Your task to perform on an android device: Check the news Image 0: 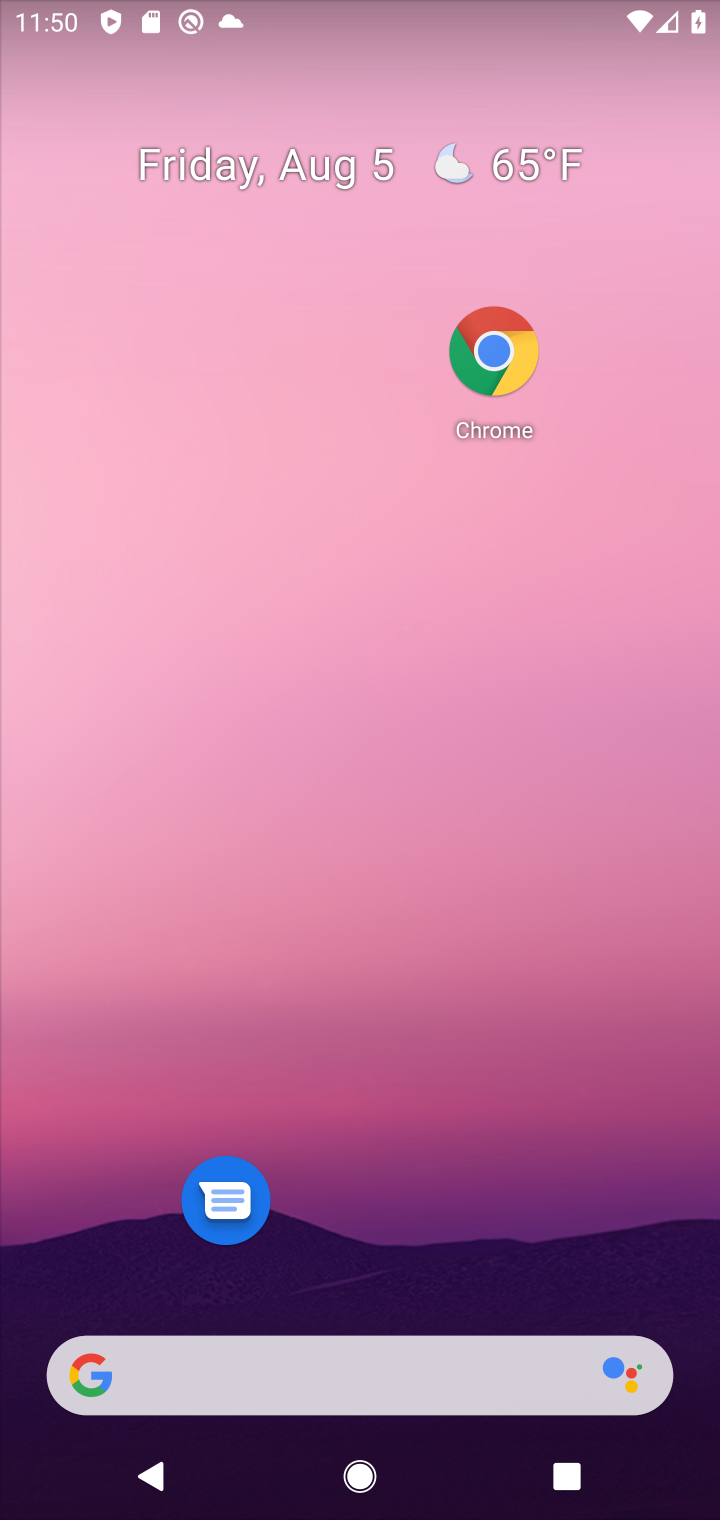
Step 0: drag from (358, 1220) to (576, 75)
Your task to perform on an android device: Check the news Image 1: 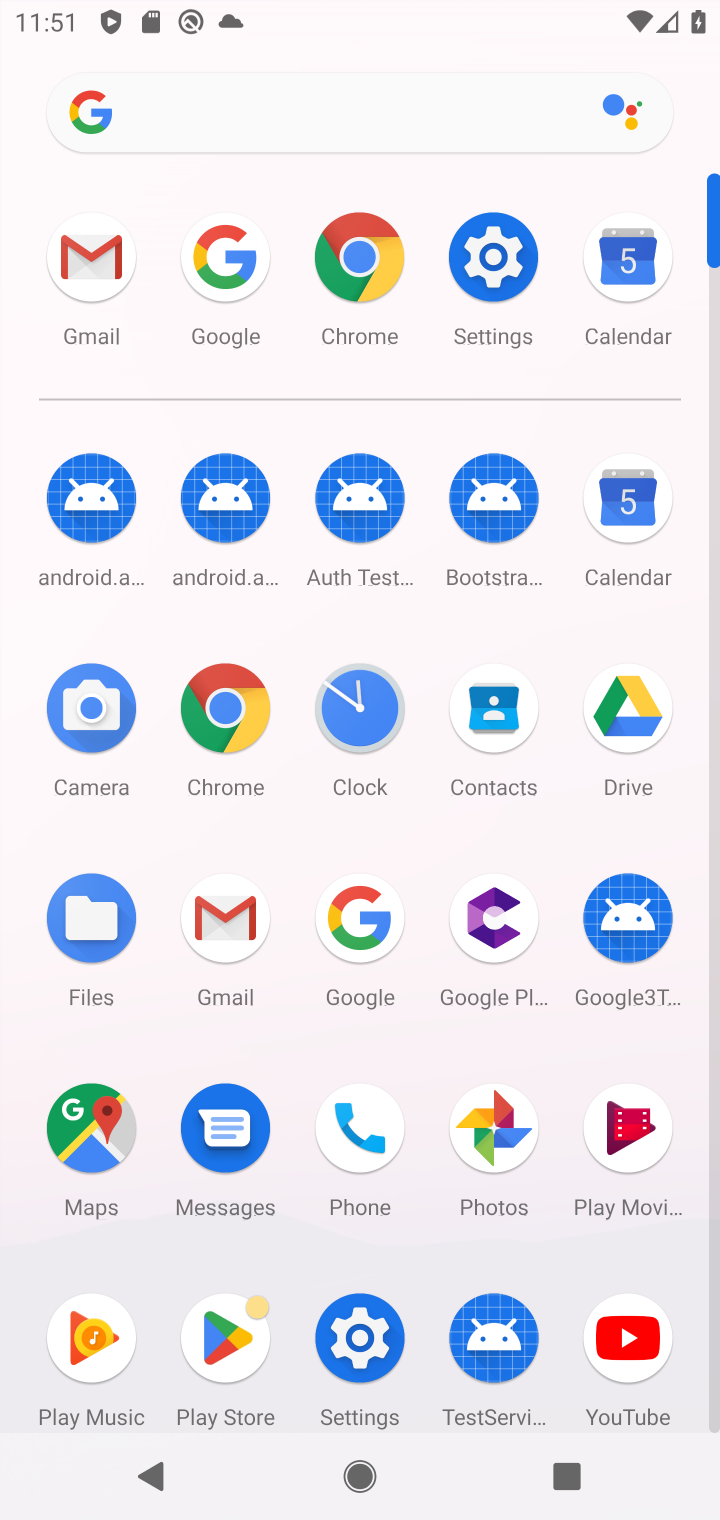
Step 1: click (366, 936)
Your task to perform on an android device: Check the news Image 2: 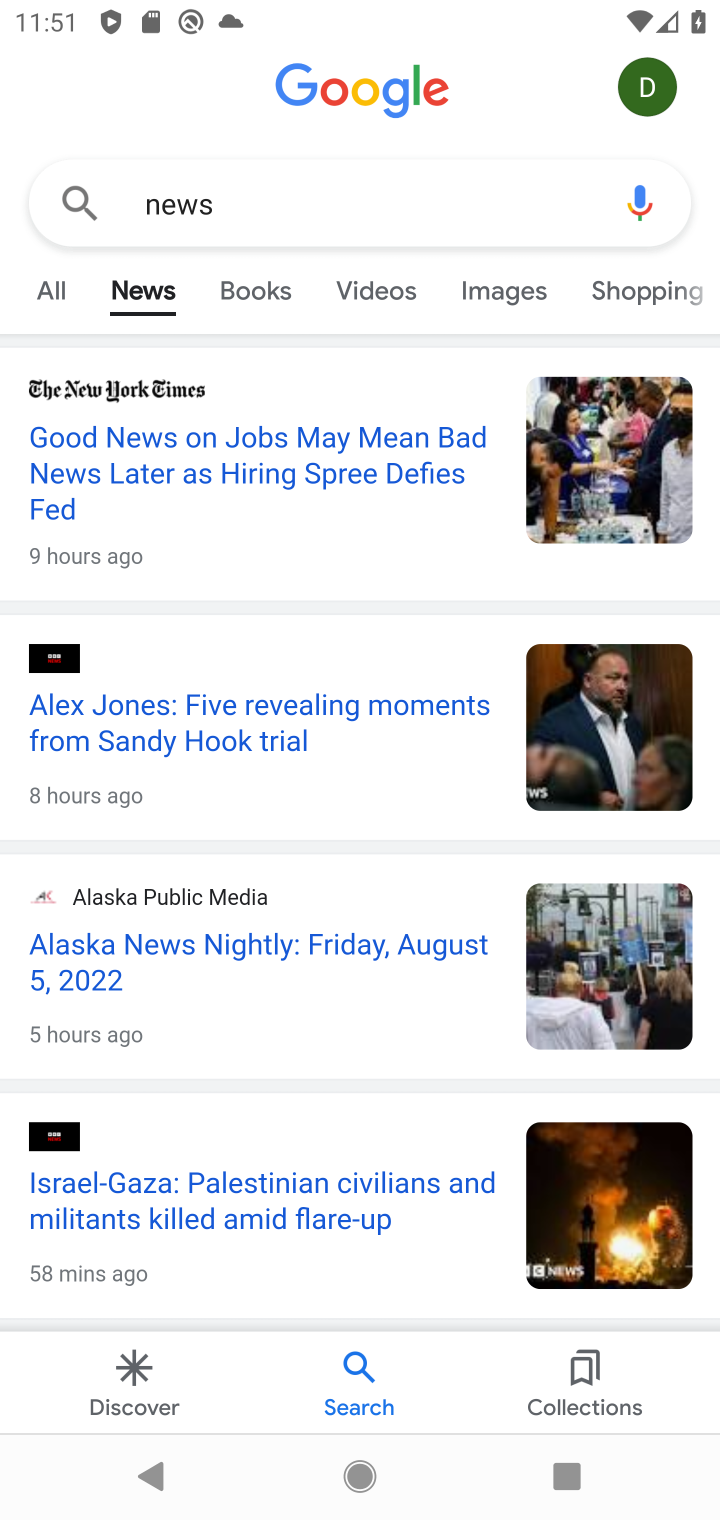
Step 2: task complete